Your task to perform on an android device: open a bookmark in the chrome app Image 0: 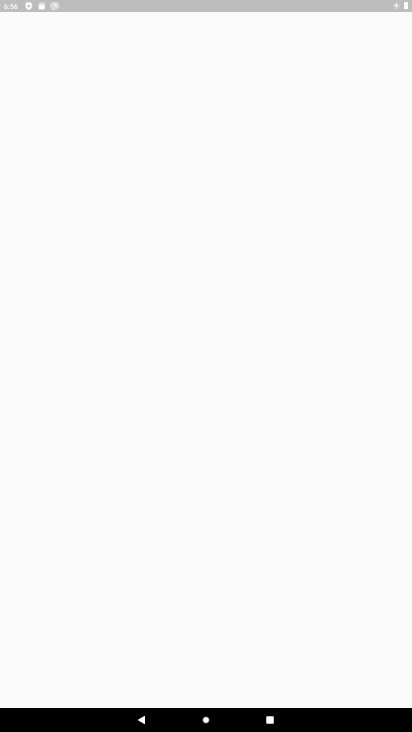
Step 0: press home button
Your task to perform on an android device: open a bookmark in the chrome app Image 1: 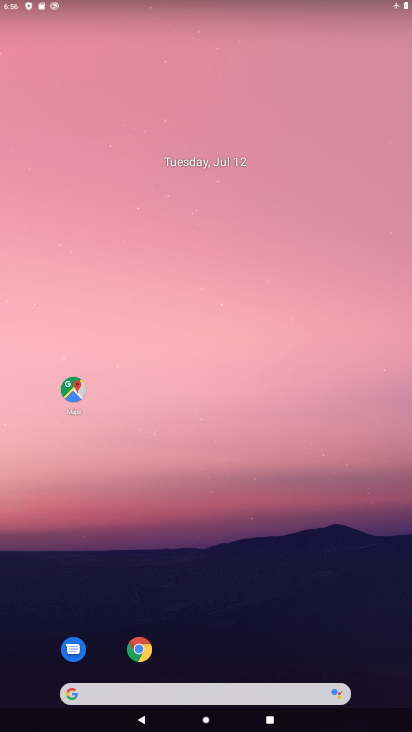
Step 1: click (140, 657)
Your task to perform on an android device: open a bookmark in the chrome app Image 2: 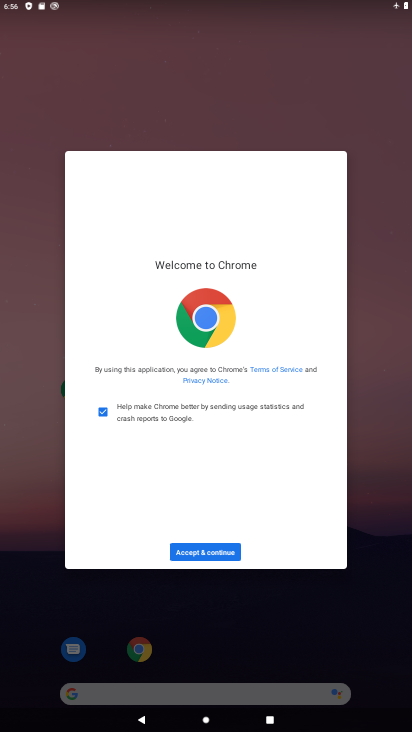
Step 2: click (217, 558)
Your task to perform on an android device: open a bookmark in the chrome app Image 3: 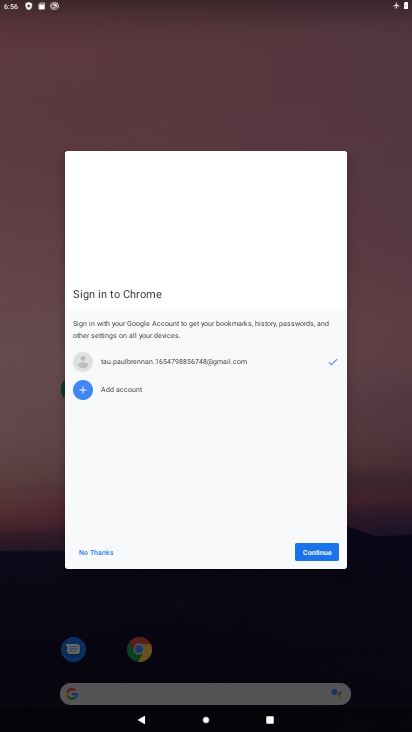
Step 3: click (320, 561)
Your task to perform on an android device: open a bookmark in the chrome app Image 4: 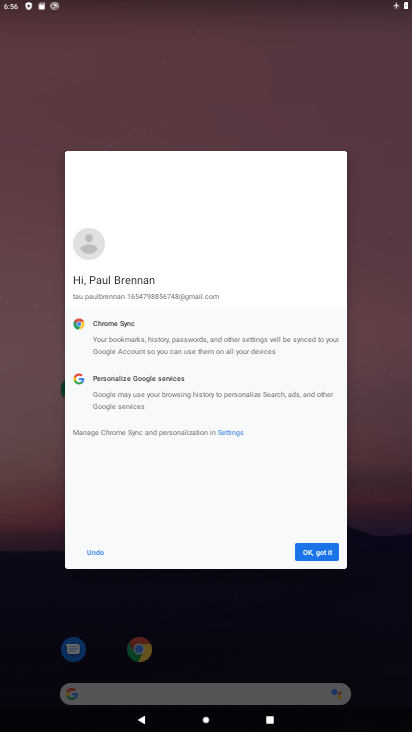
Step 4: click (313, 552)
Your task to perform on an android device: open a bookmark in the chrome app Image 5: 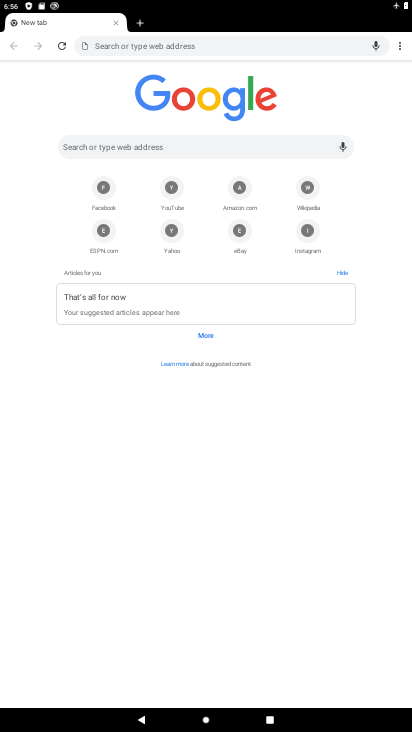
Step 5: click (402, 48)
Your task to perform on an android device: open a bookmark in the chrome app Image 6: 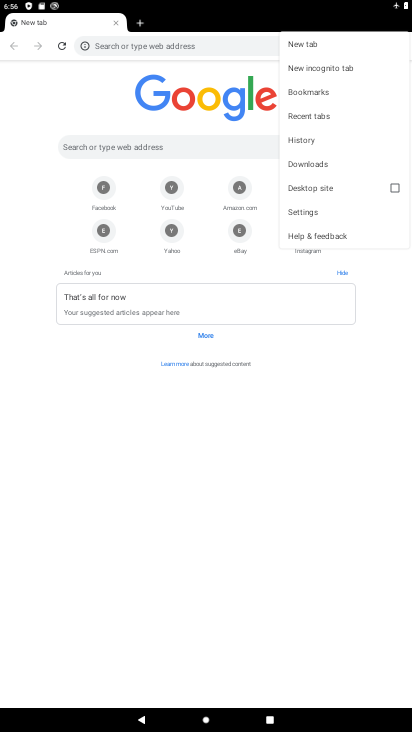
Step 6: click (323, 95)
Your task to perform on an android device: open a bookmark in the chrome app Image 7: 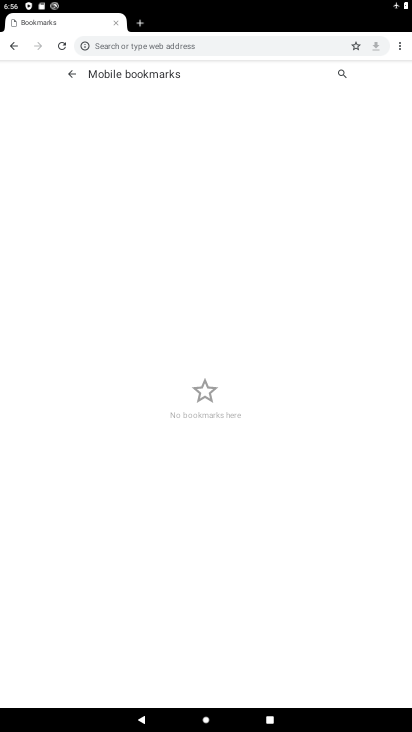
Step 7: task complete